Your task to perform on an android device: Search for the best selling phone on AliExpress Image 0: 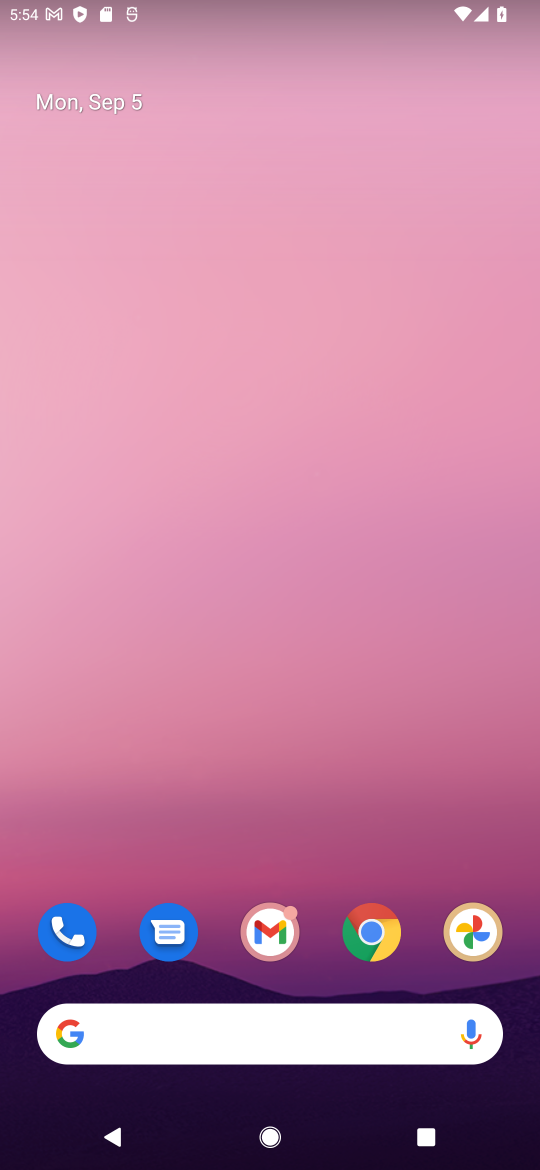
Step 0: drag from (320, 1000) to (242, 20)
Your task to perform on an android device: Search for the best selling phone on AliExpress Image 1: 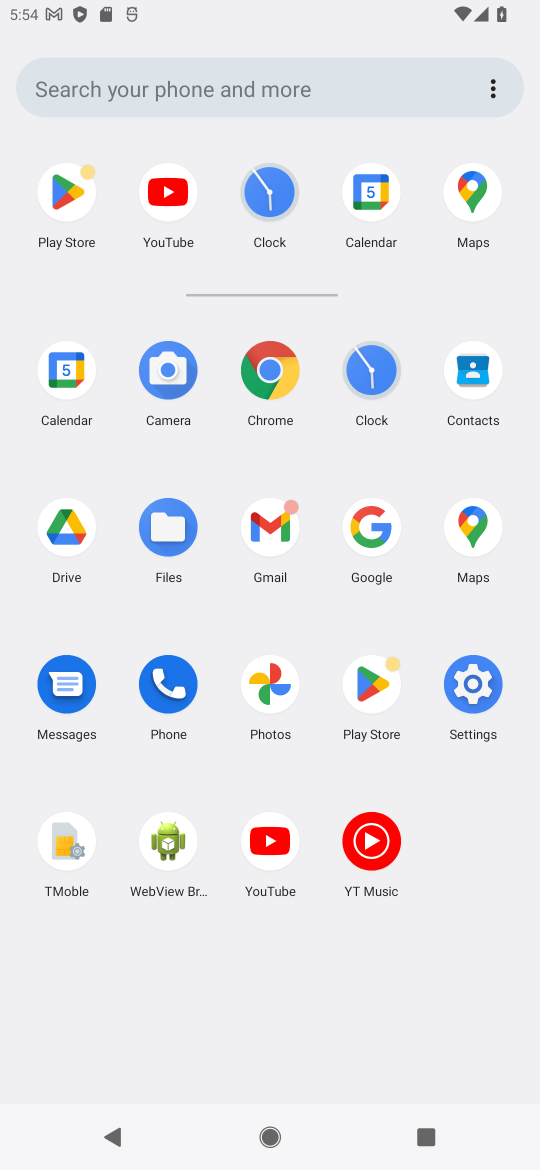
Step 1: click (371, 507)
Your task to perform on an android device: Search for the best selling phone on AliExpress Image 2: 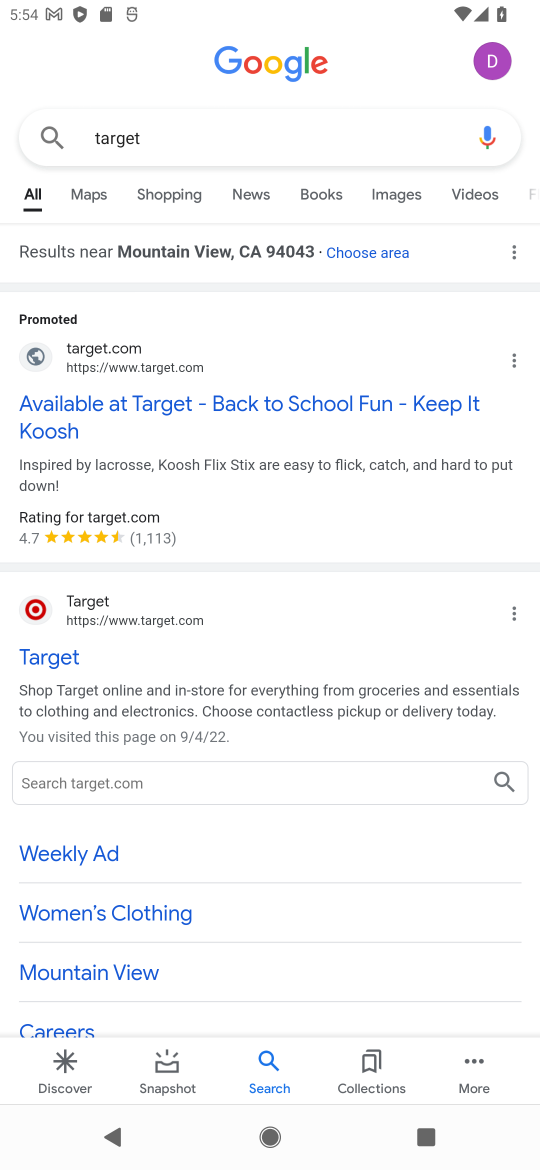
Step 2: click (218, 140)
Your task to perform on an android device: Search for the best selling phone on AliExpress Image 3: 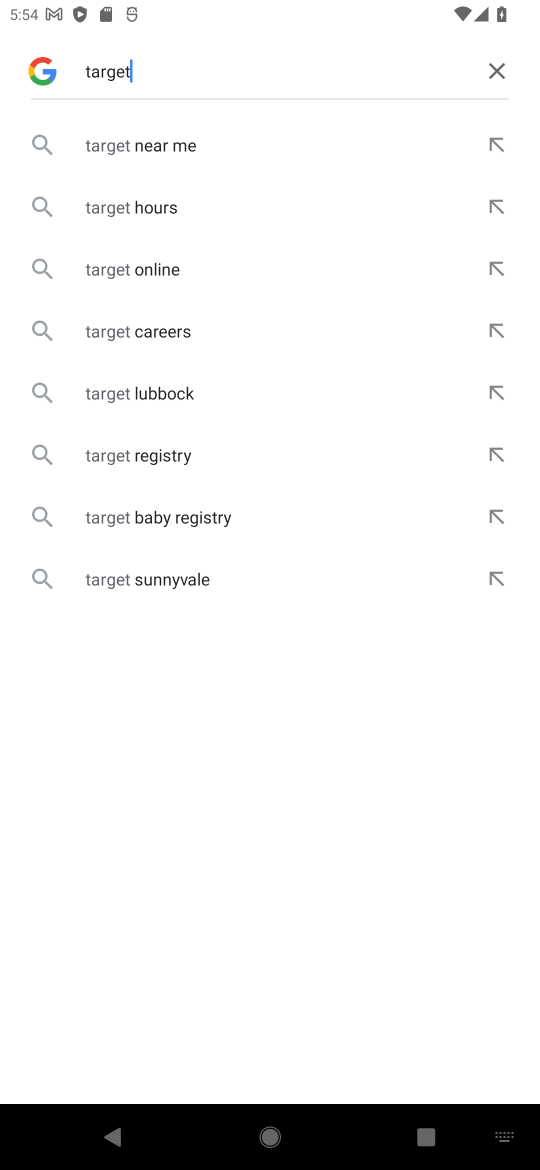
Step 3: click (492, 65)
Your task to perform on an android device: Search for the best selling phone on AliExpress Image 4: 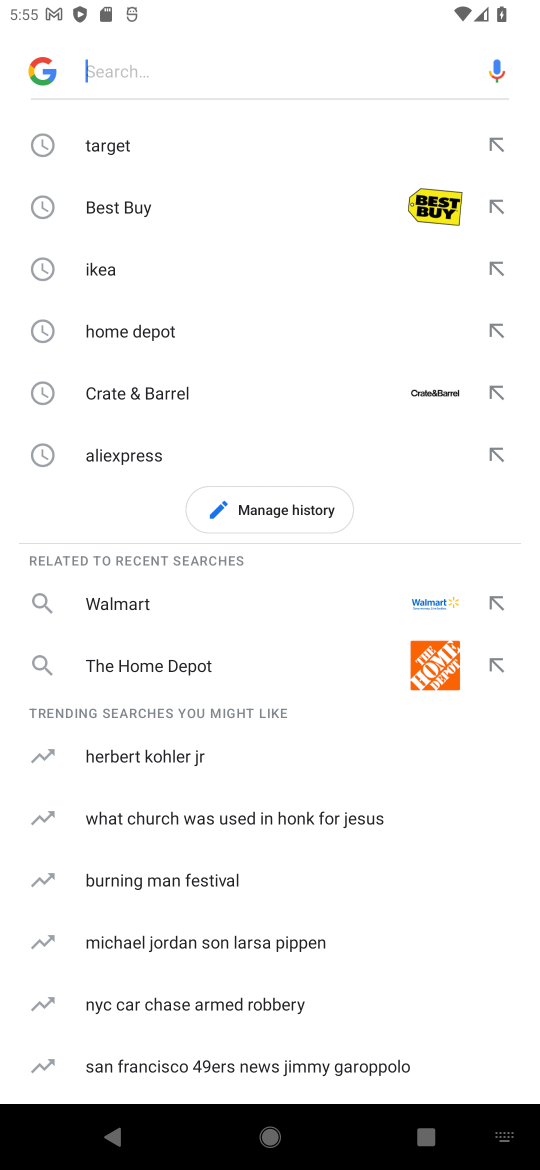
Step 4: type "AliExpress"
Your task to perform on an android device: Search for the best selling phone on AliExpress Image 5: 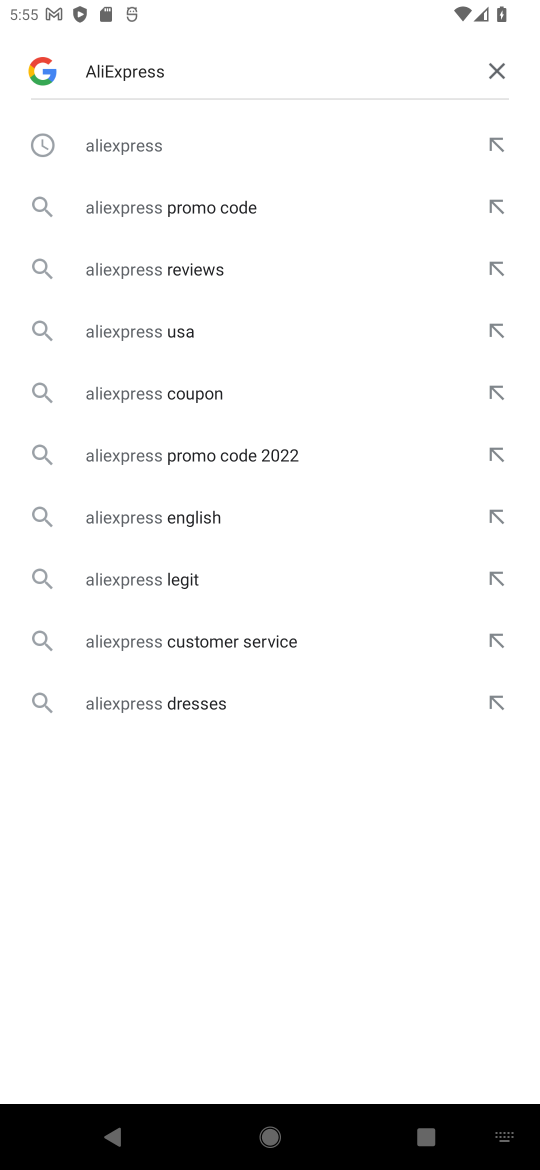
Step 5: click (128, 151)
Your task to perform on an android device: Search for the best selling phone on AliExpress Image 6: 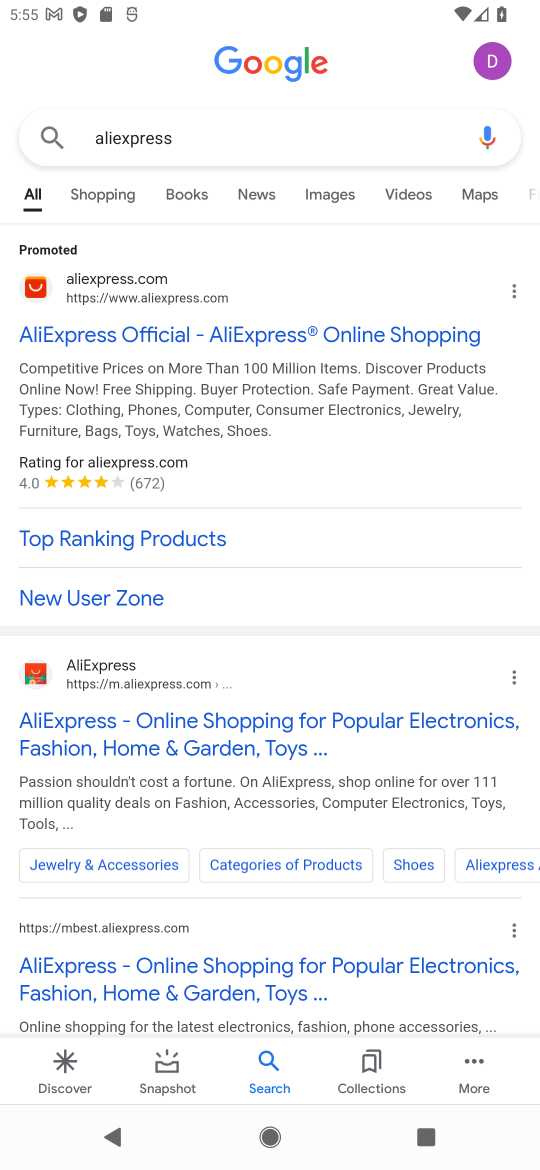
Step 6: drag from (188, 954) to (193, 477)
Your task to perform on an android device: Search for the best selling phone on AliExpress Image 7: 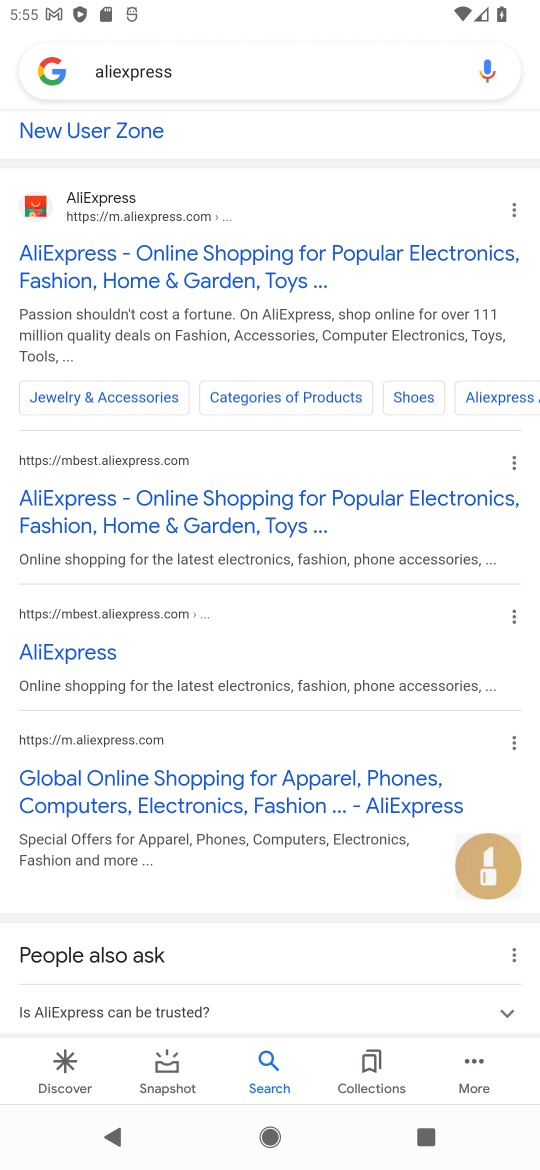
Step 7: drag from (257, 214) to (287, 687)
Your task to perform on an android device: Search for the best selling phone on AliExpress Image 8: 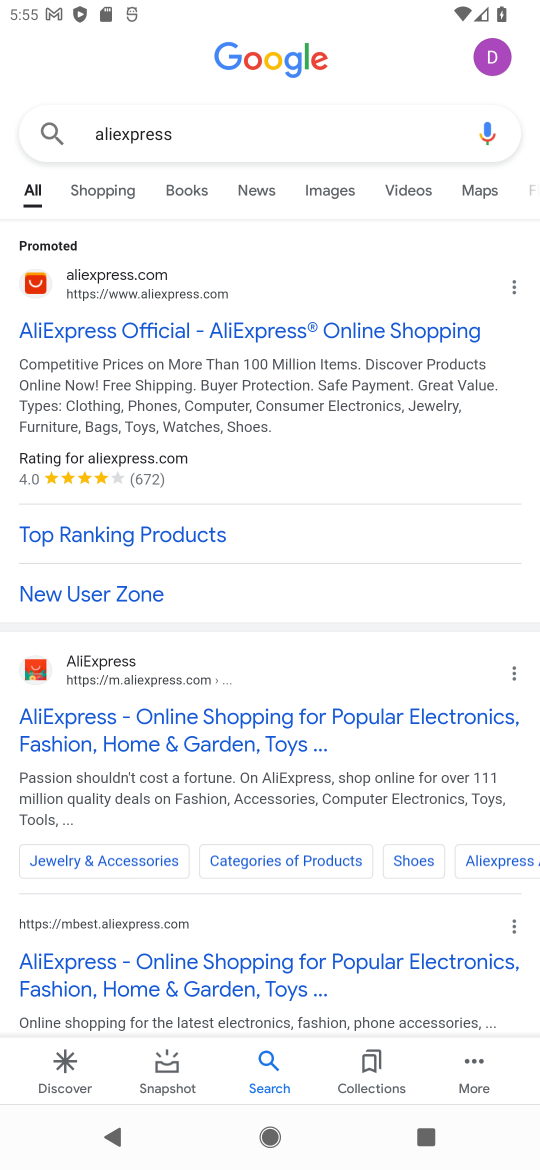
Step 8: click (177, 333)
Your task to perform on an android device: Search for the best selling phone on AliExpress Image 9: 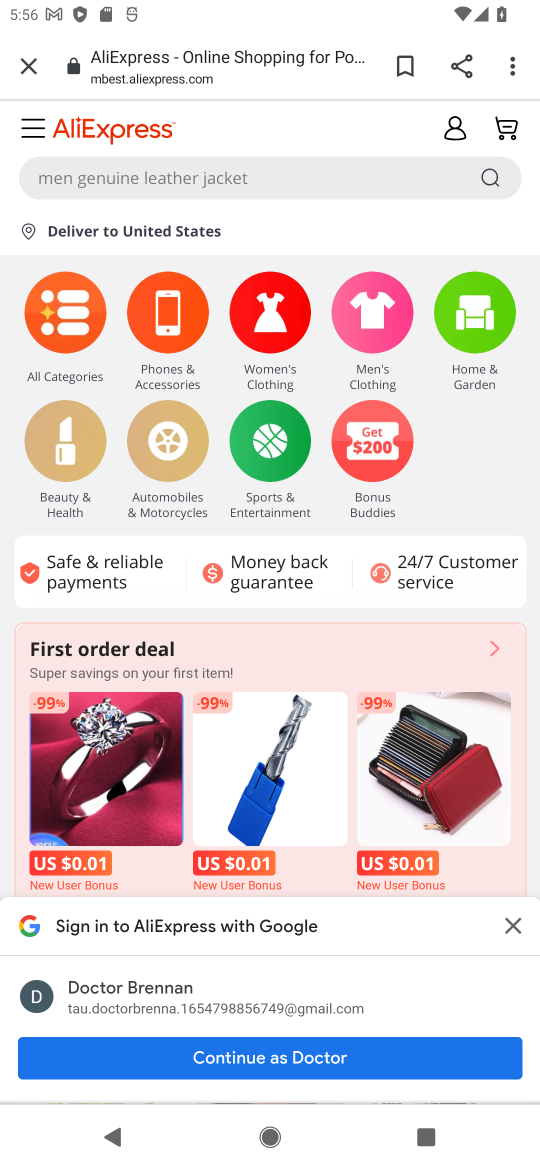
Step 9: click (157, 180)
Your task to perform on an android device: Search for the best selling phone on AliExpress Image 10: 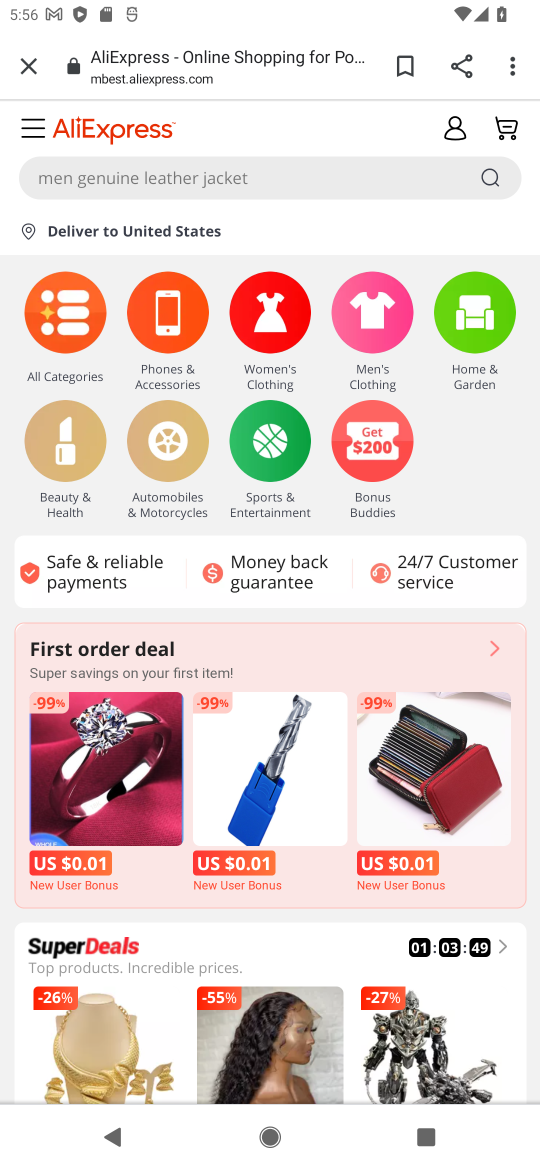
Step 10: click (177, 180)
Your task to perform on an android device: Search for the best selling phone on AliExpress Image 11: 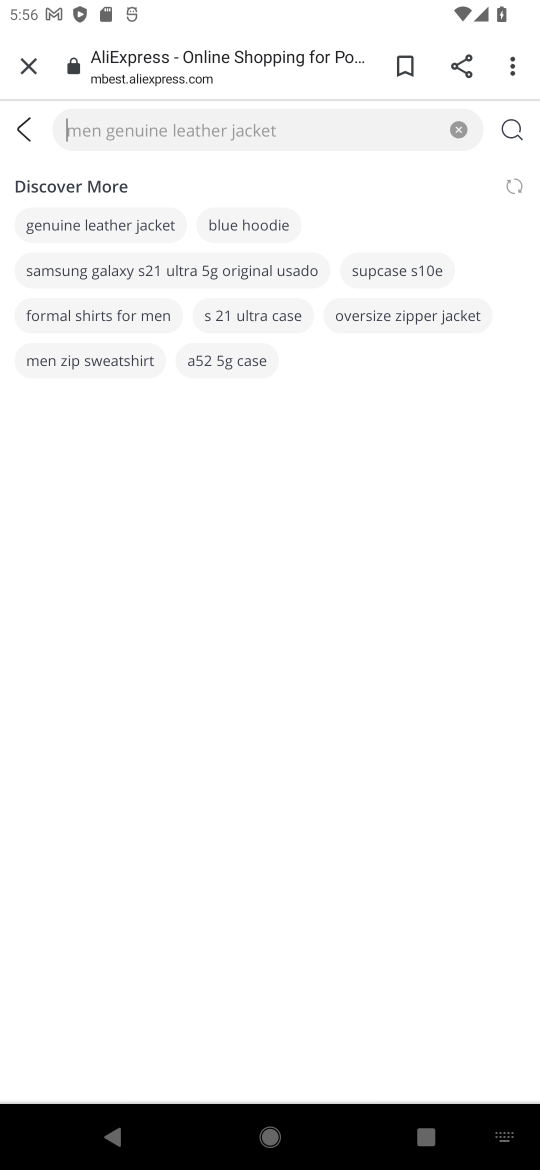
Step 11: type "best selling phone "
Your task to perform on an android device: Search for the best selling phone on AliExpress Image 12: 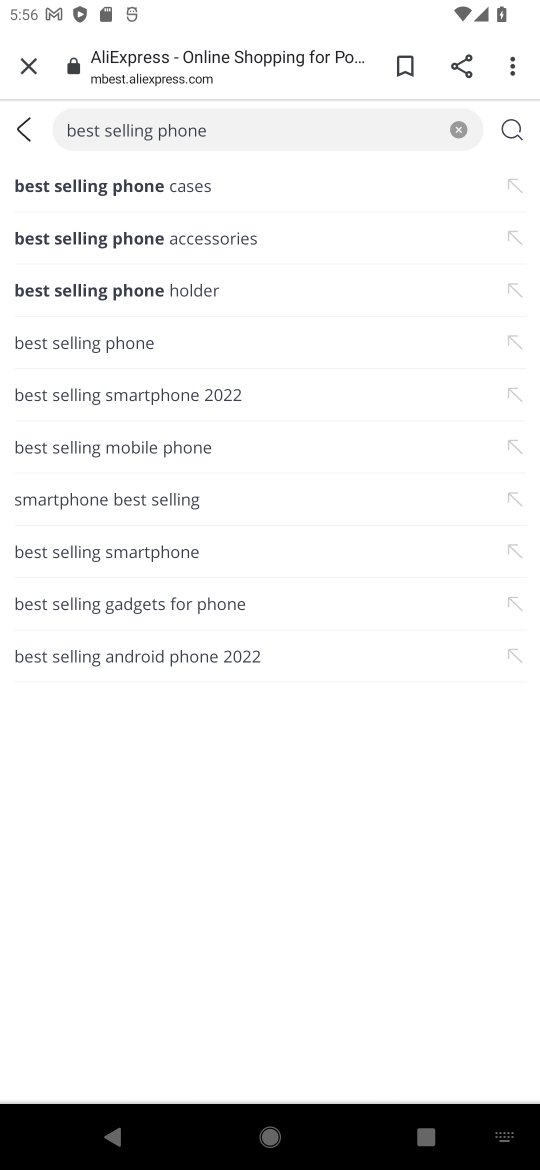
Step 12: click (113, 344)
Your task to perform on an android device: Search for the best selling phone on AliExpress Image 13: 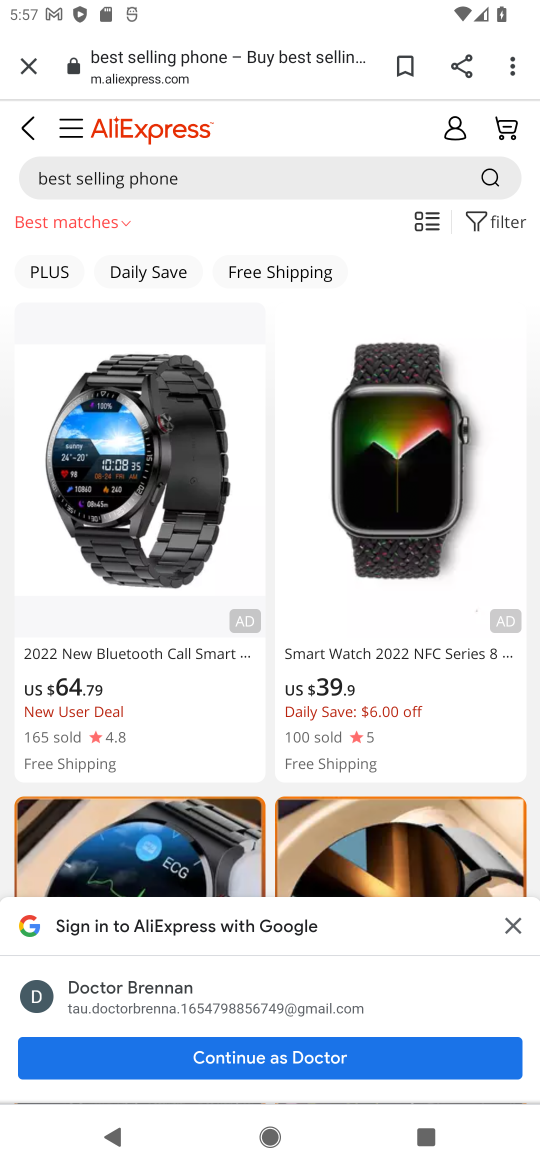
Step 13: task complete